Your task to perform on an android device: open app "DuckDuckGo Privacy Browser" (install if not already installed) Image 0: 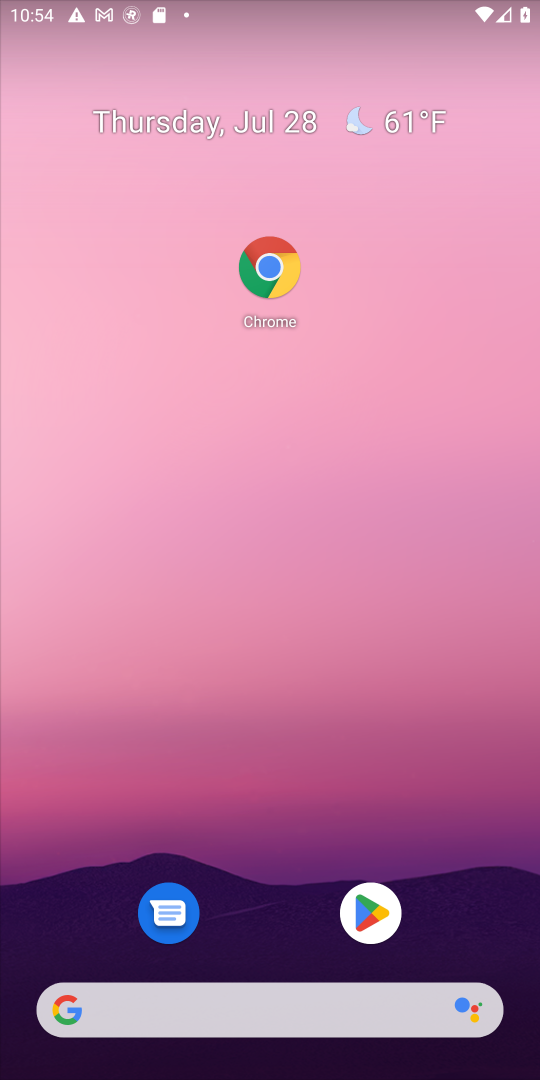
Step 0: click (359, 902)
Your task to perform on an android device: open app "DuckDuckGo Privacy Browser" (install if not already installed) Image 1: 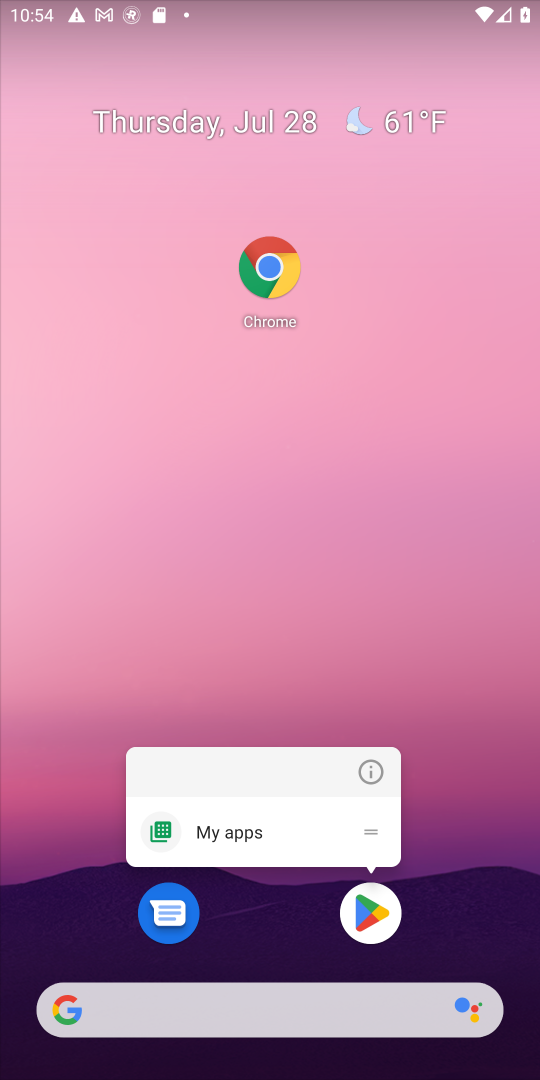
Step 1: click (382, 917)
Your task to perform on an android device: open app "DuckDuckGo Privacy Browser" (install if not already installed) Image 2: 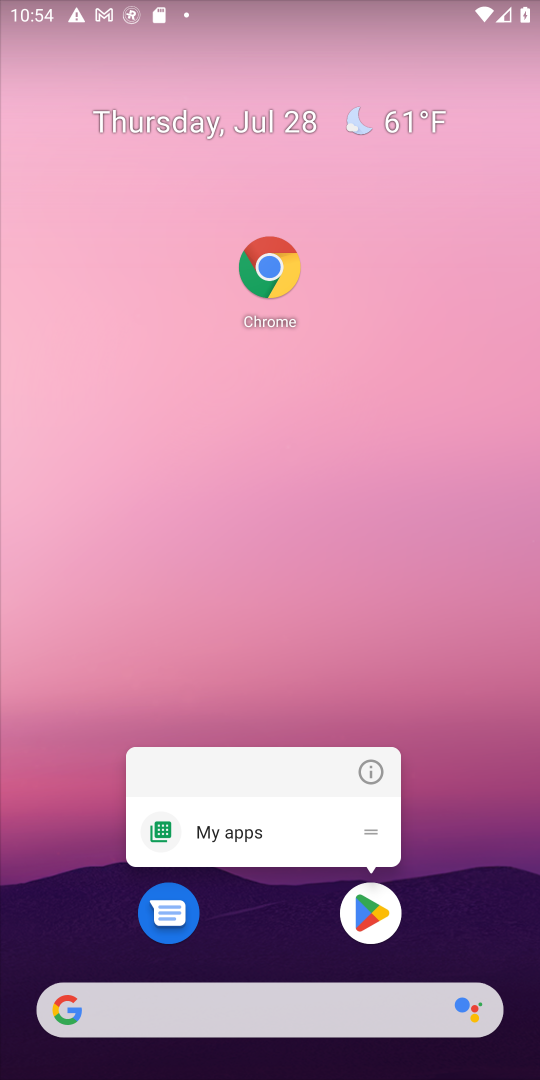
Step 2: click (382, 914)
Your task to perform on an android device: open app "DuckDuckGo Privacy Browser" (install if not already installed) Image 3: 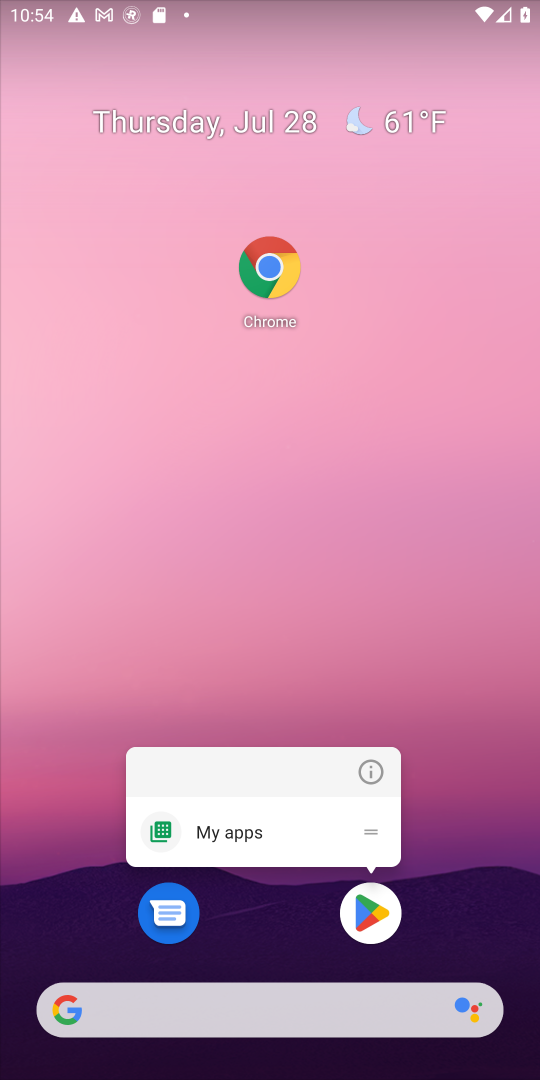
Step 3: click (229, 821)
Your task to perform on an android device: open app "DuckDuckGo Privacy Browser" (install if not already installed) Image 4: 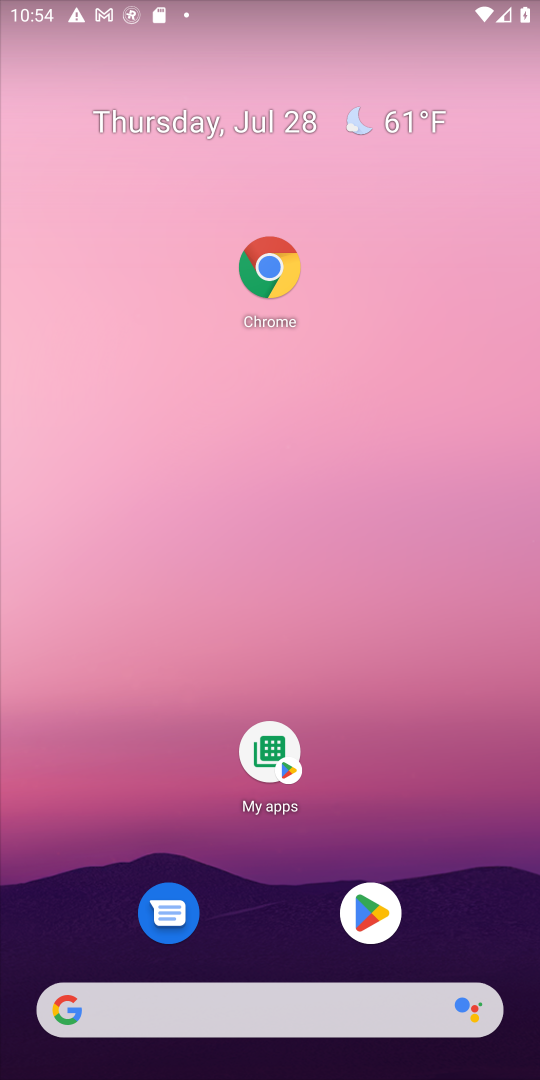
Step 4: click (376, 930)
Your task to perform on an android device: open app "DuckDuckGo Privacy Browser" (install if not already installed) Image 5: 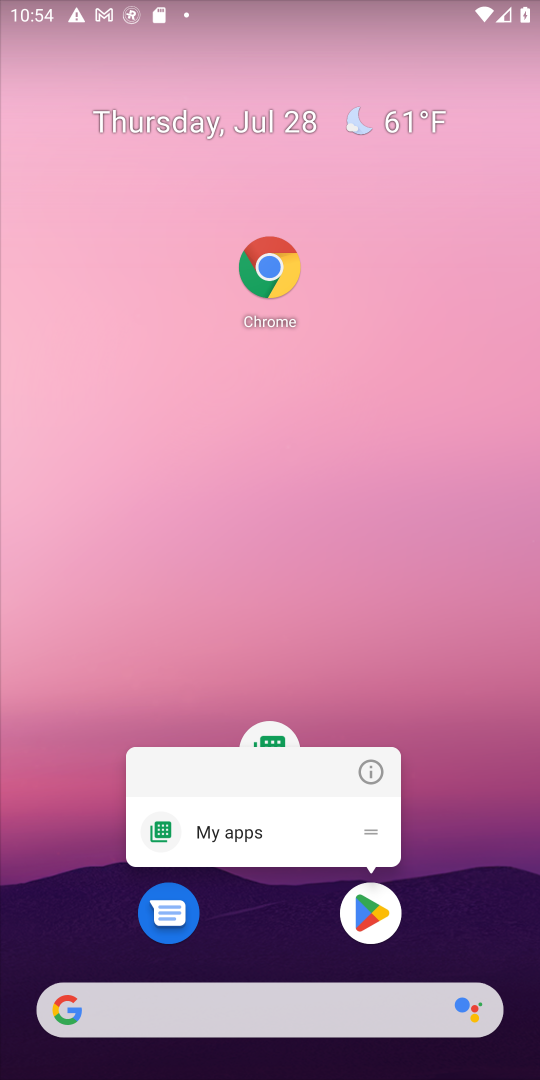
Step 5: click (377, 922)
Your task to perform on an android device: open app "DuckDuckGo Privacy Browser" (install if not already installed) Image 6: 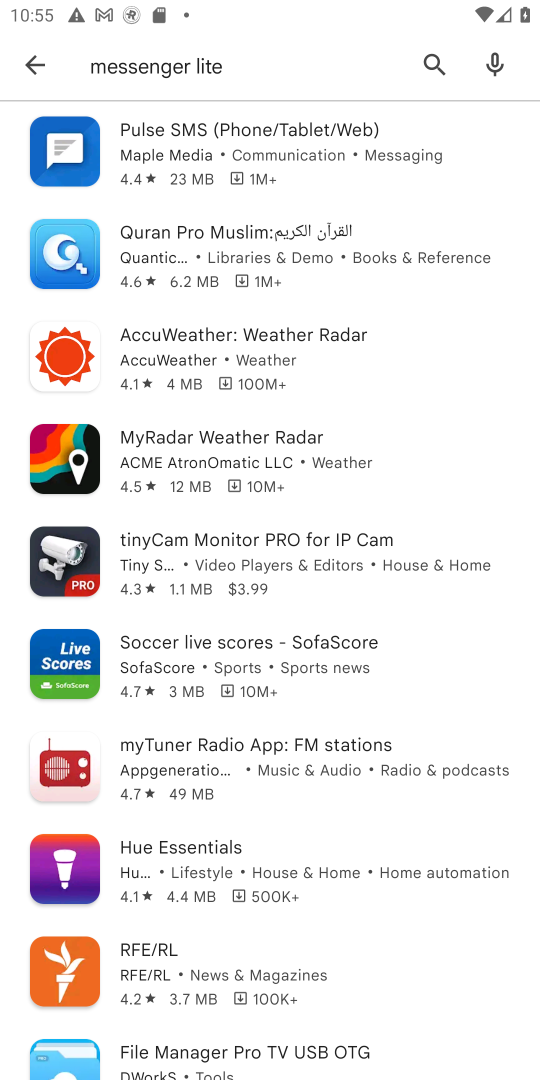
Step 6: click (426, 57)
Your task to perform on an android device: open app "DuckDuckGo Privacy Browser" (install if not already installed) Image 7: 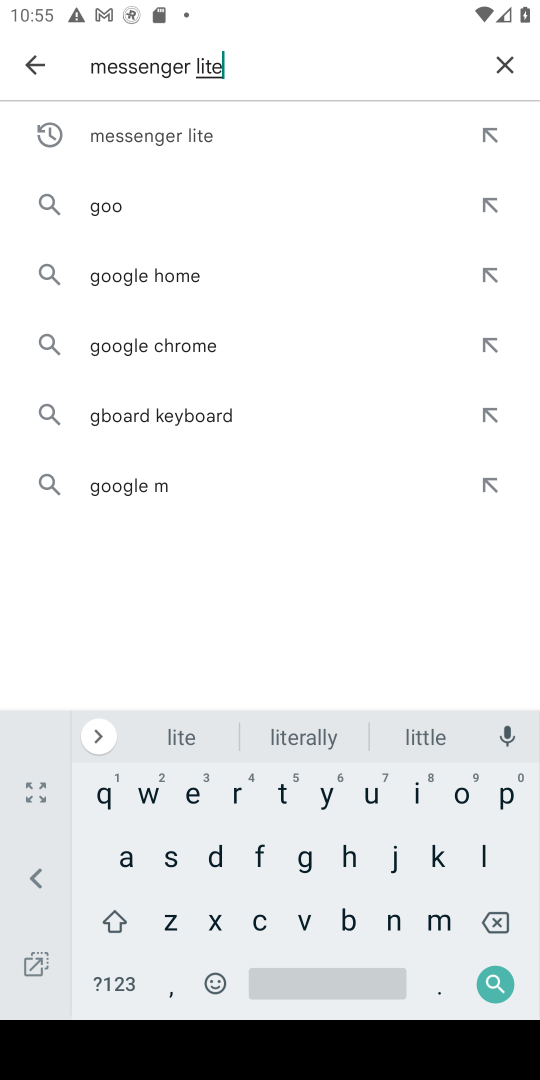
Step 7: click (504, 64)
Your task to perform on an android device: open app "DuckDuckGo Privacy Browser" (install if not already installed) Image 8: 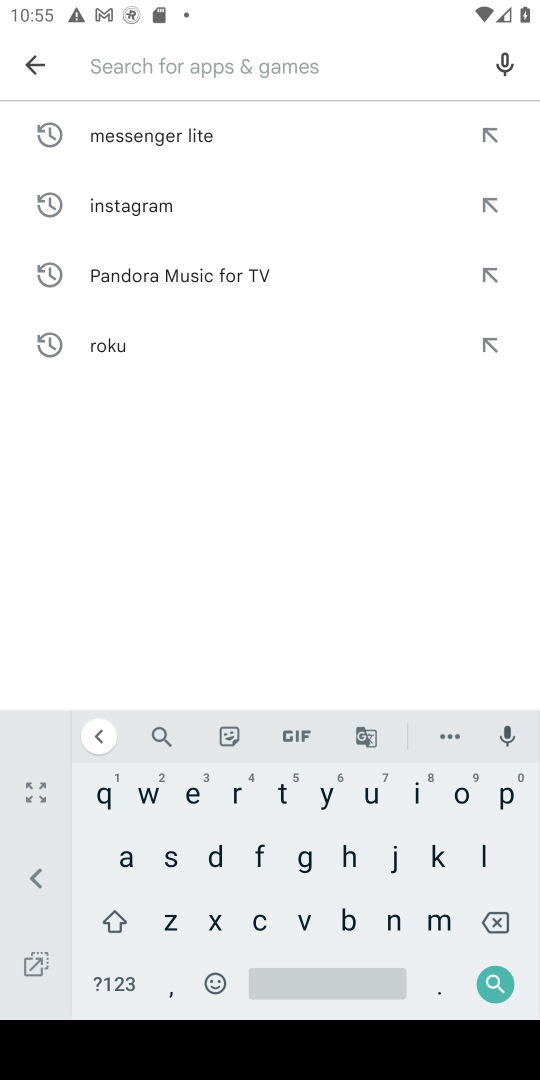
Step 8: click (41, 795)
Your task to perform on an android device: open app "DuckDuckGo Privacy Browser" (install if not already installed) Image 9: 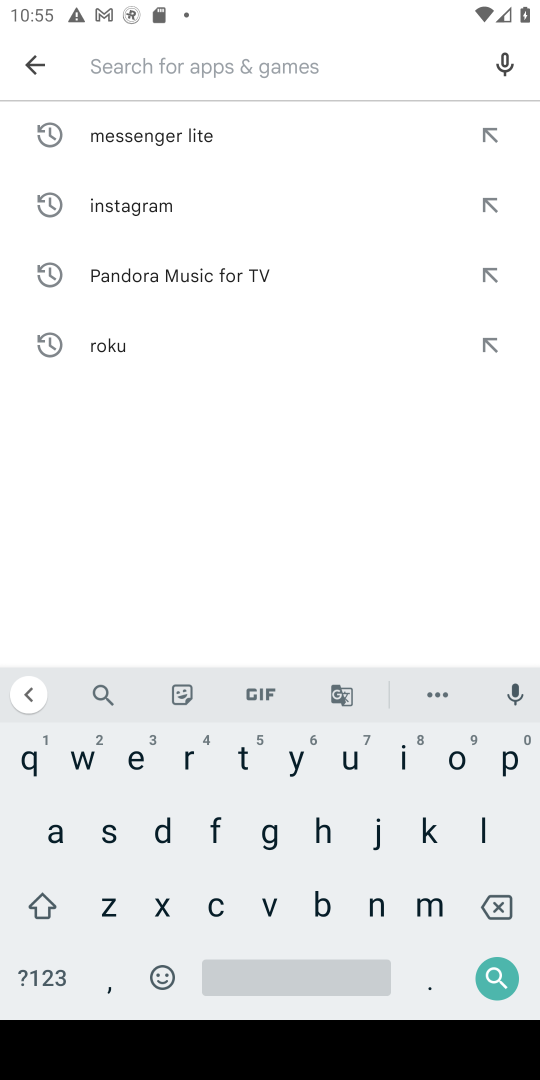
Step 9: click (158, 830)
Your task to perform on an android device: open app "DuckDuckGo Privacy Browser" (install if not already installed) Image 10: 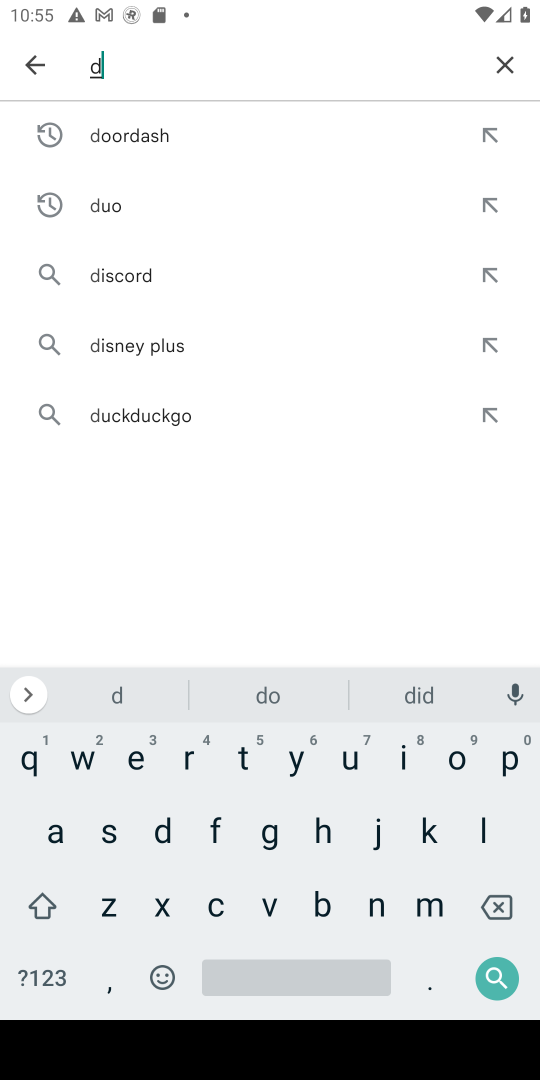
Step 10: click (351, 754)
Your task to perform on an android device: open app "DuckDuckGo Privacy Browser" (install if not already installed) Image 11: 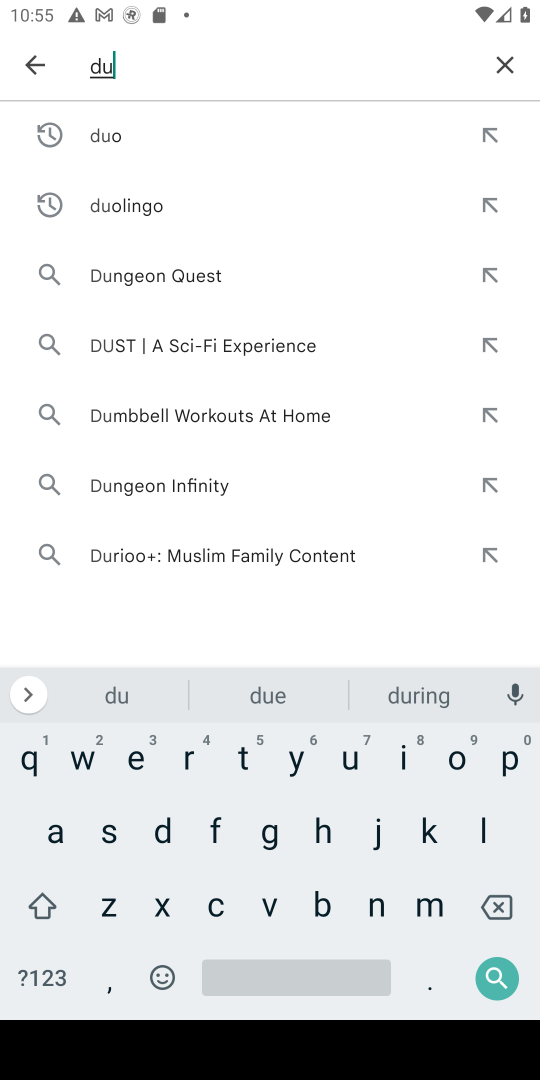
Step 11: click (150, 208)
Your task to perform on an android device: open app "DuckDuckGo Privacy Browser" (install if not already installed) Image 12: 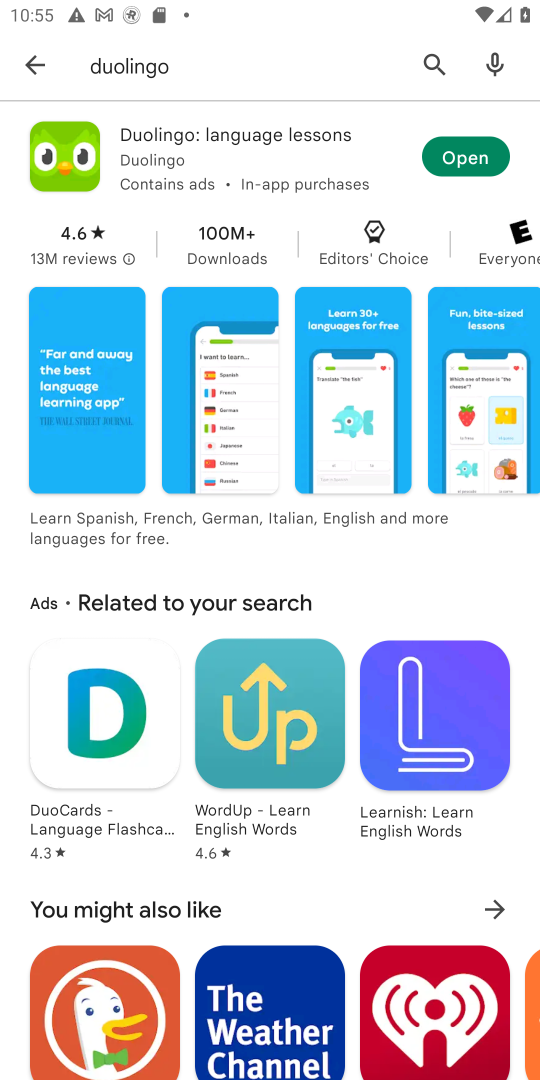
Step 12: click (414, 56)
Your task to perform on an android device: open app "DuckDuckGo Privacy Browser" (install if not already installed) Image 13: 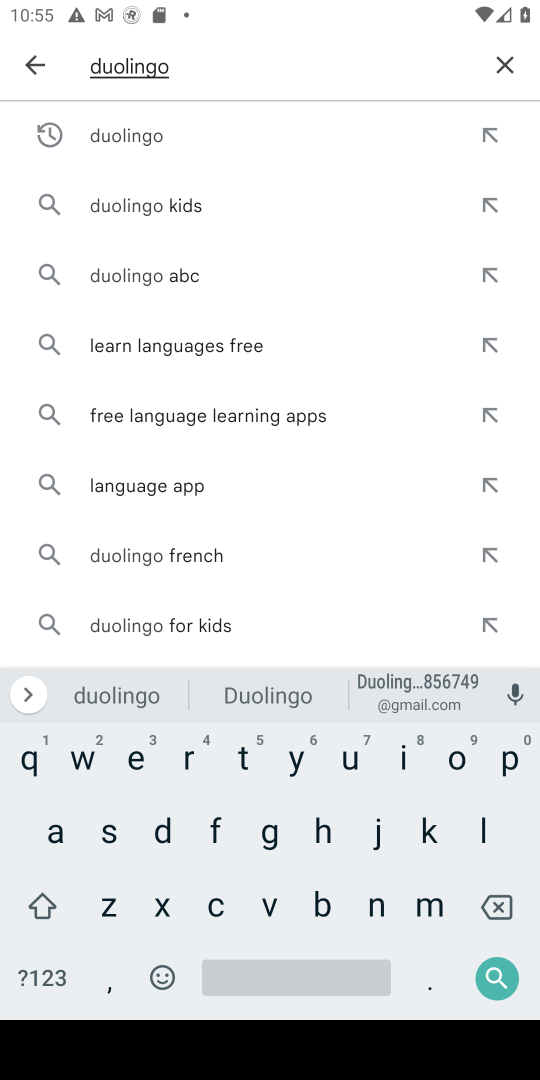
Step 13: click (498, 60)
Your task to perform on an android device: open app "DuckDuckGo Privacy Browser" (install if not already installed) Image 14: 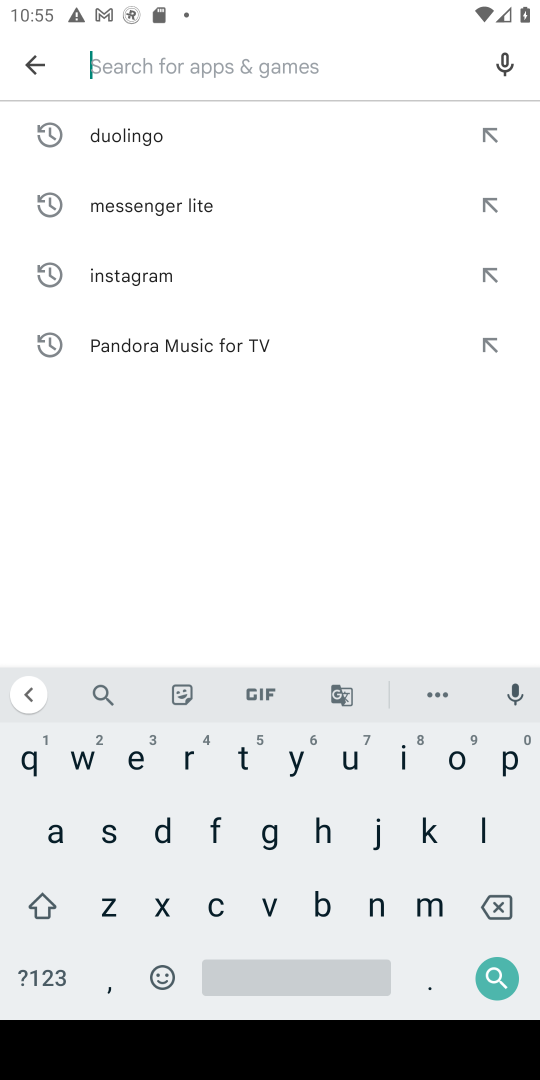
Step 14: click (167, 835)
Your task to perform on an android device: open app "DuckDuckGo Privacy Browser" (install if not already installed) Image 15: 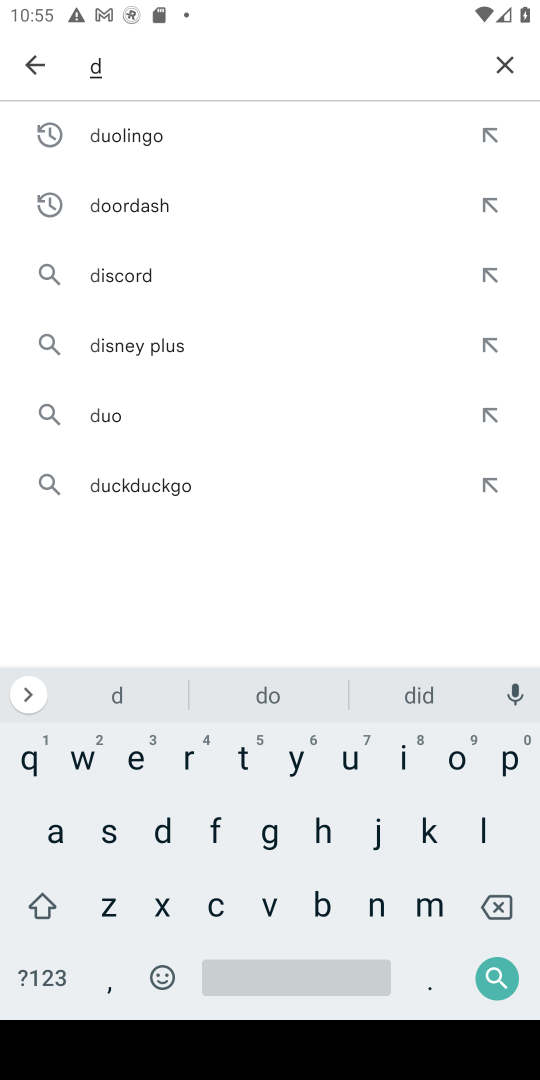
Step 15: click (341, 764)
Your task to perform on an android device: open app "DuckDuckGo Privacy Browser" (install if not already installed) Image 16: 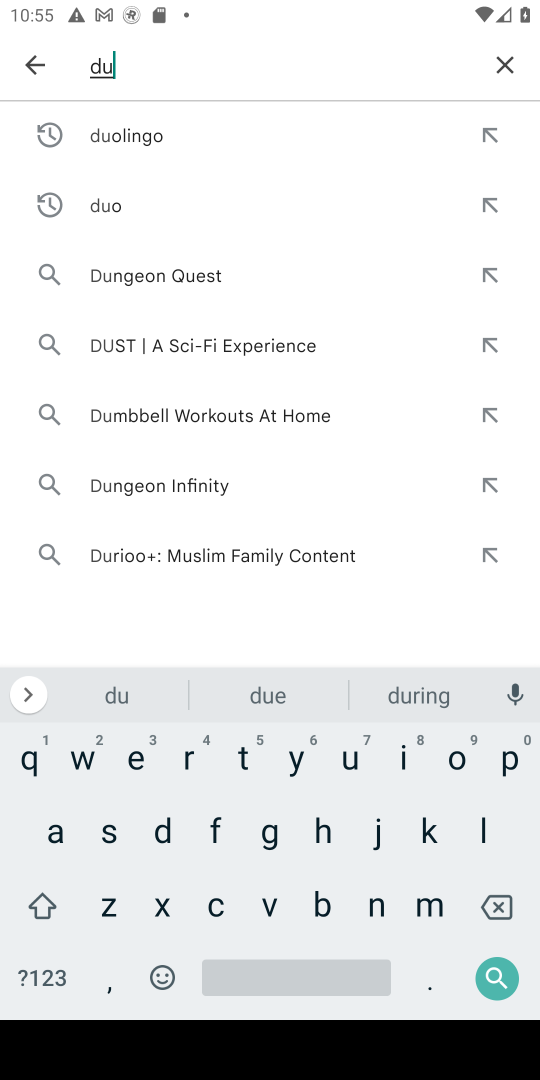
Step 16: click (198, 906)
Your task to perform on an android device: open app "DuckDuckGo Privacy Browser" (install if not already installed) Image 17: 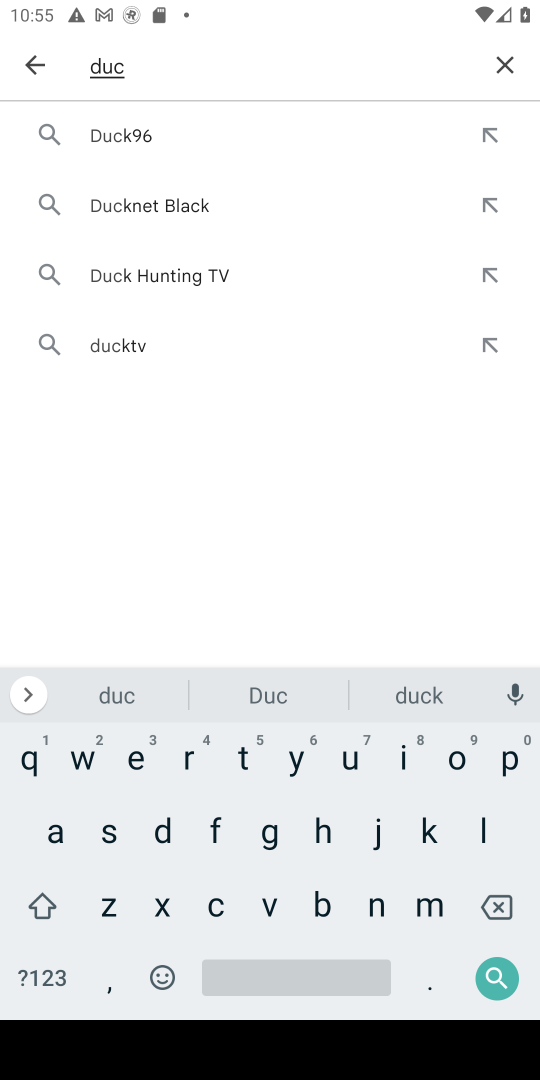
Step 17: click (432, 830)
Your task to perform on an android device: open app "DuckDuckGo Privacy Browser" (install if not already installed) Image 18: 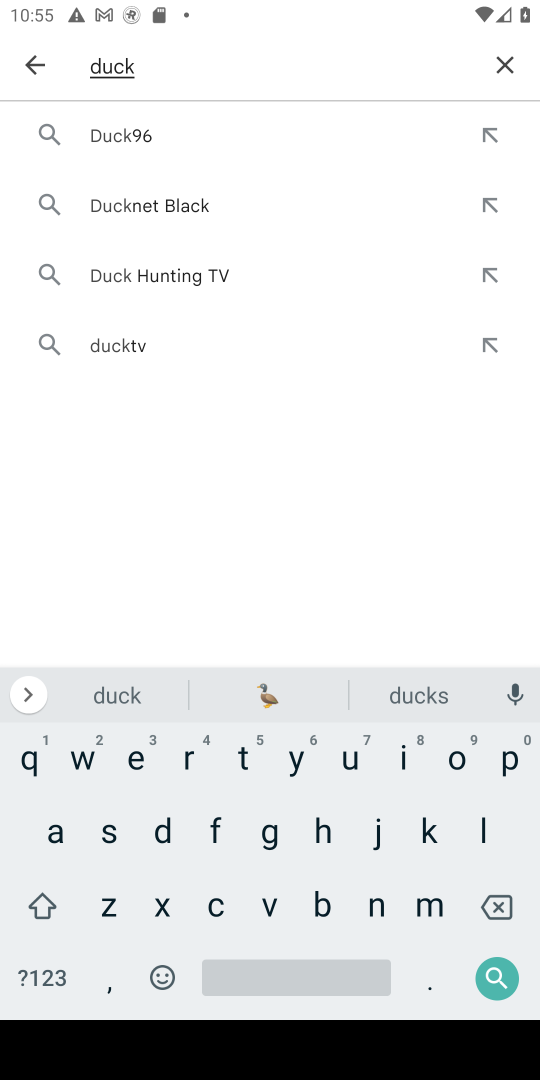
Step 18: click (158, 823)
Your task to perform on an android device: open app "DuckDuckGo Privacy Browser" (install if not already installed) Image 19: 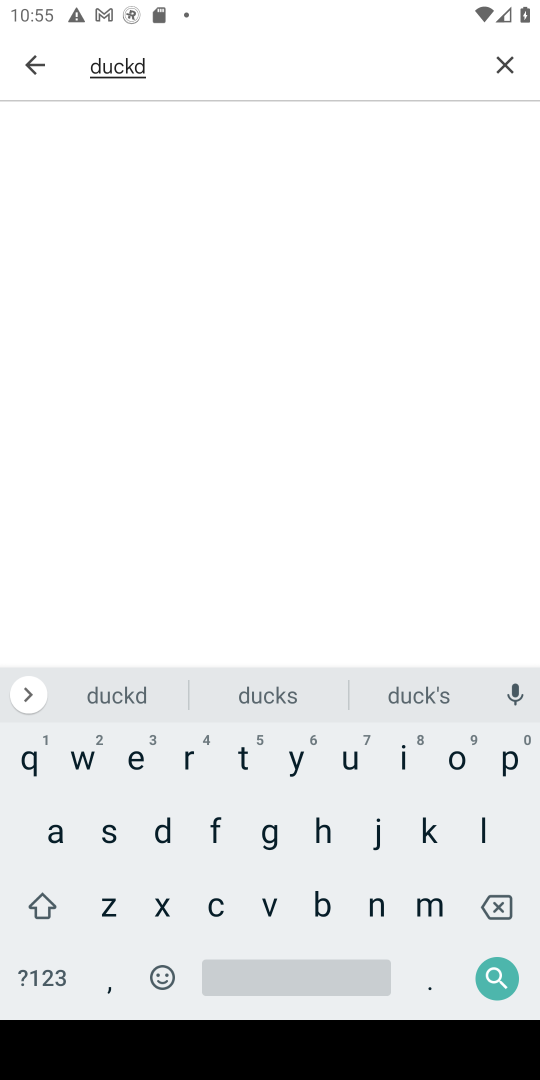
Step 19: click (348, 760)
Your task to perform on an android device: open app "DuckDuckGo Privacy Browser" (install if not already installed) Image 20: 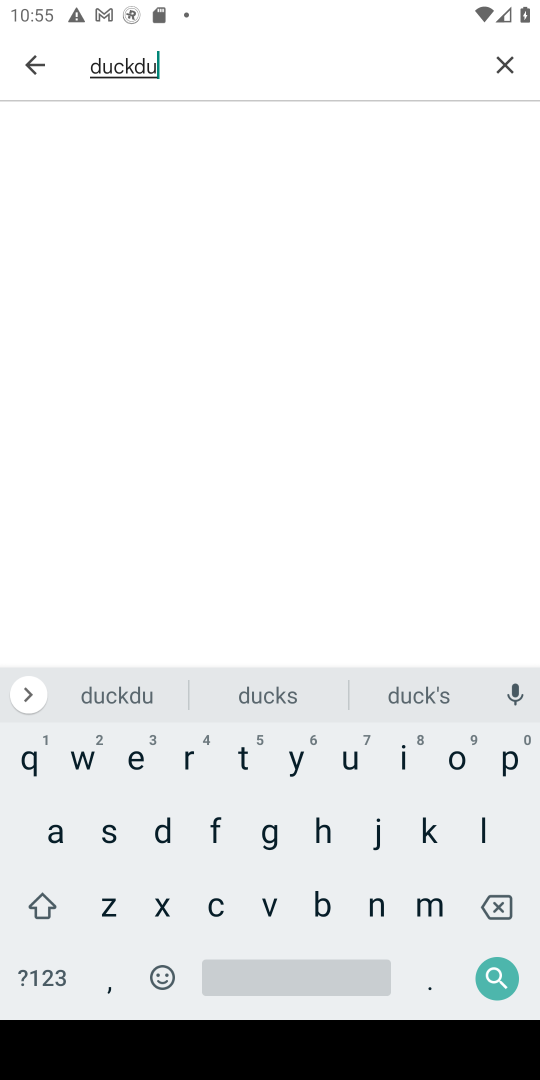
Step 20: click (206, 912)
Your task to perform on an android device: open app "DuckDuckGo Privacy Browser" (install if not already installed) Image 21: 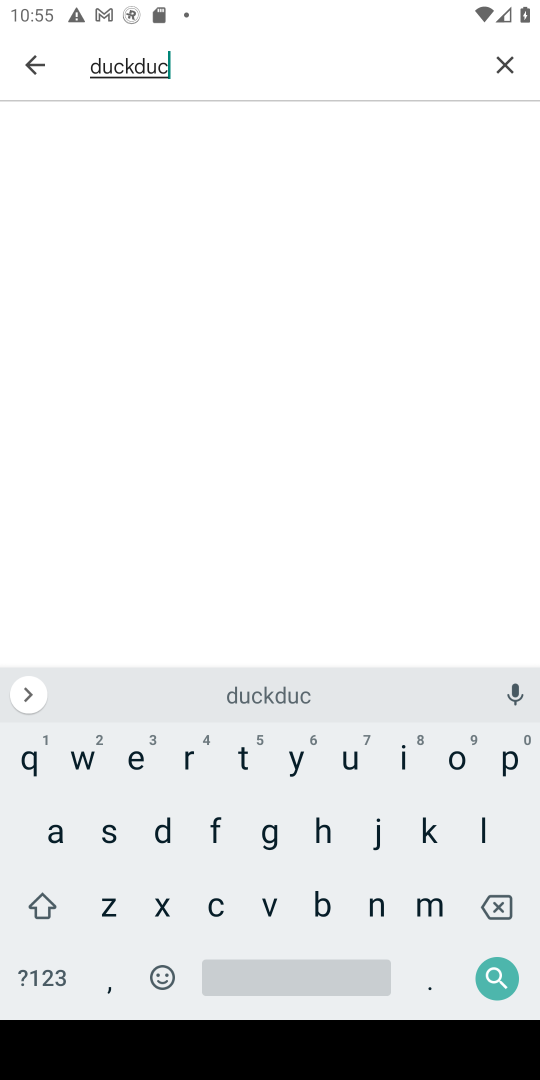
Step 21: click (426, 830)
Your task to perform on an android device: open app "DuckDuckGo Privacy Browser" (install if not already installed) Image 22: 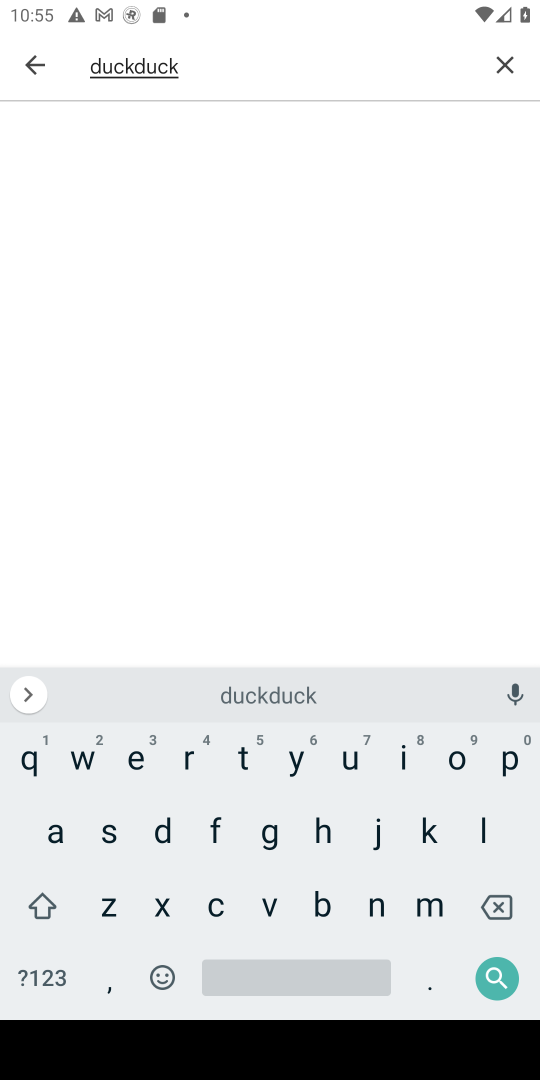
Step 22: click (269, 831)
Your task to perform on an android device: open app "DuckDuckGo Privacy Browser" (install if not already installed) Image 23: 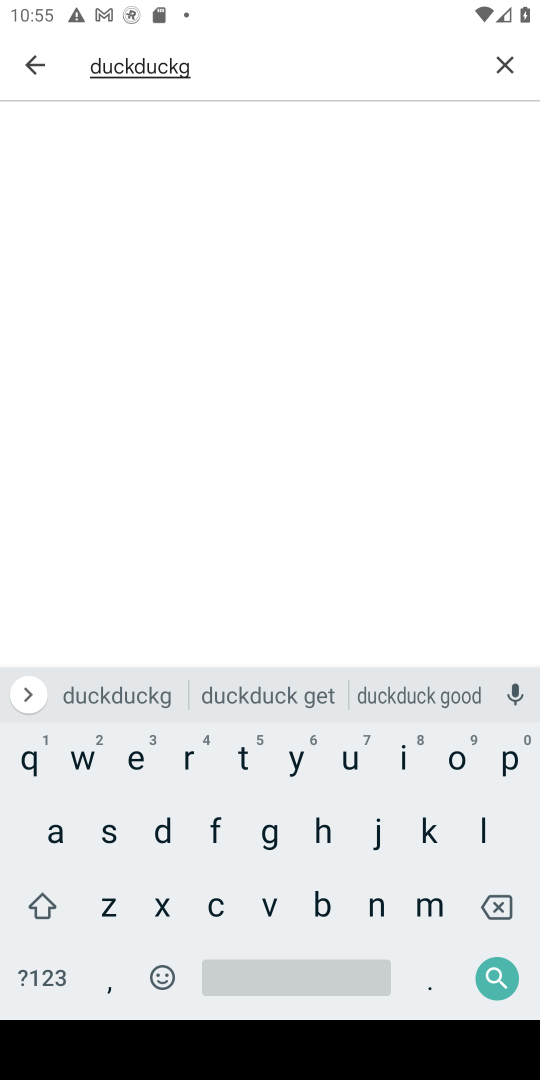
Step 23: click (454, 764)
Your task to perform on an android device: open app "DuckDuckGo Privacy Browser" (install if not already installed) Image 24: 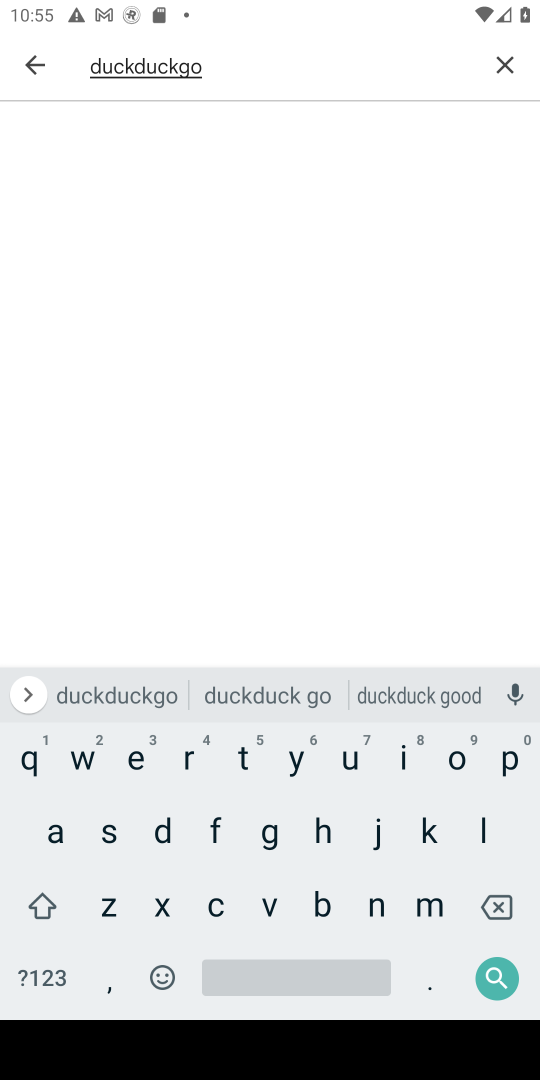
Step 24: click (487, 979)
Your task to perform on an android device: open app "DuckDuckGo Privacy Browser" (install if not already installed) Image 25: 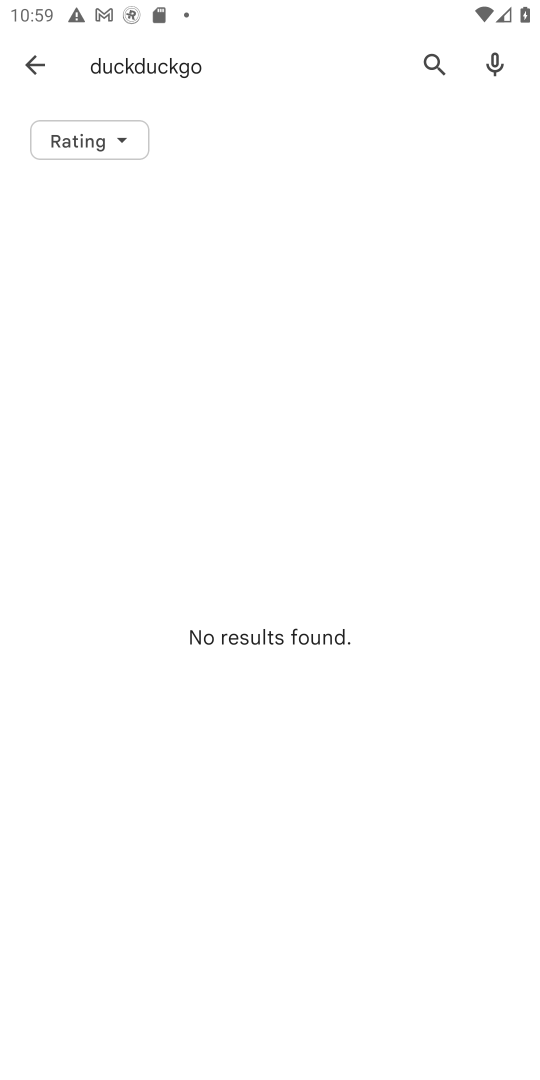
Step 25: task complete